Your task to perform on an android device: delete browsing data in the chrome app Image 0: 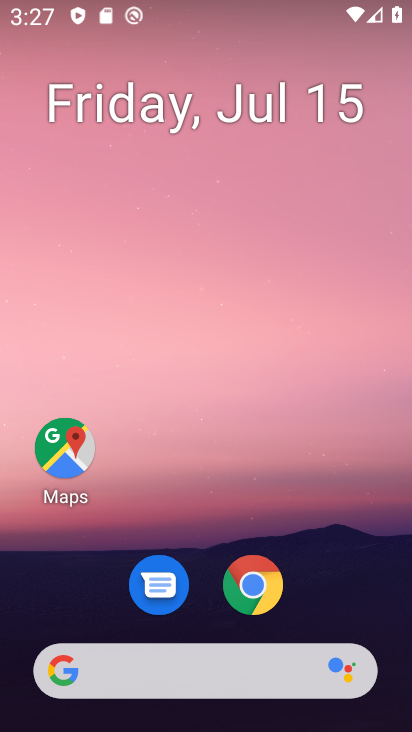
Step 0: click (267, 593)
Your task to perform on an android device: delete browsing data in the chrome app Image 1: 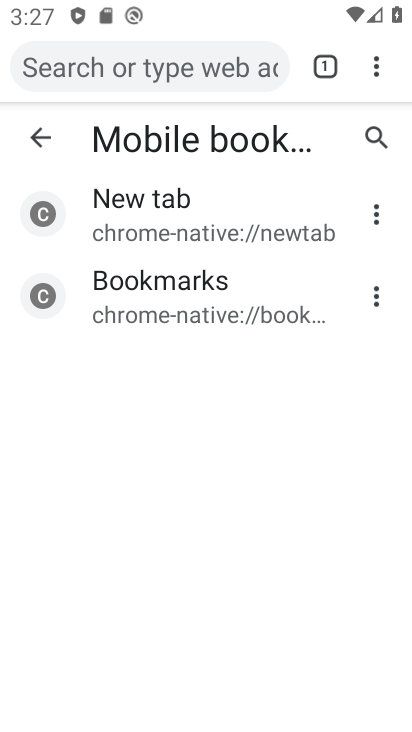
Step 1: task complete